Your task to perform on an android device: Turn off the flashlight Image 0: 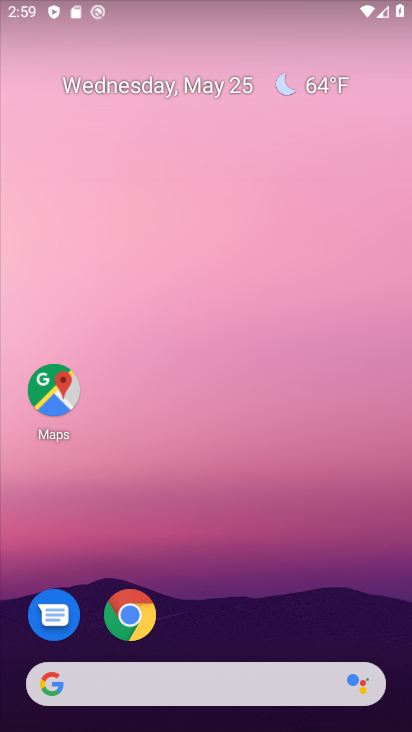
Step 0: drag from (360, 8) to (368, 491)
Your task to perform on an android device: Turn off the flashlight Image 1: 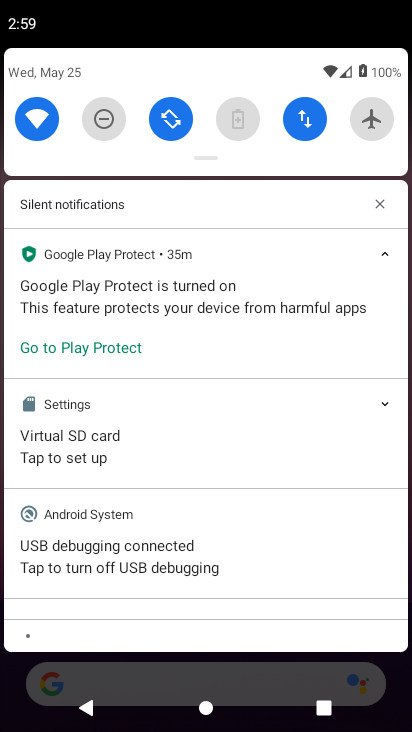
Step 1: drag from (314, 157) to (333, 603)
Your task to perform on an android device: Turn off the flashlight Image 2: 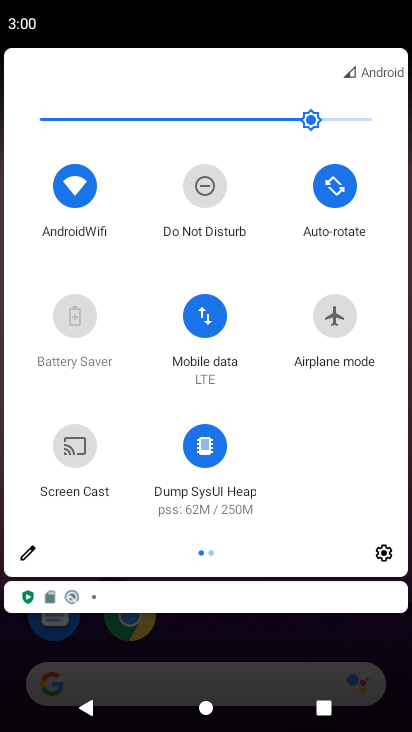
Step 2: click (28, 553)
Your task to perform on an android device: Turn off the flashlight Image 3: 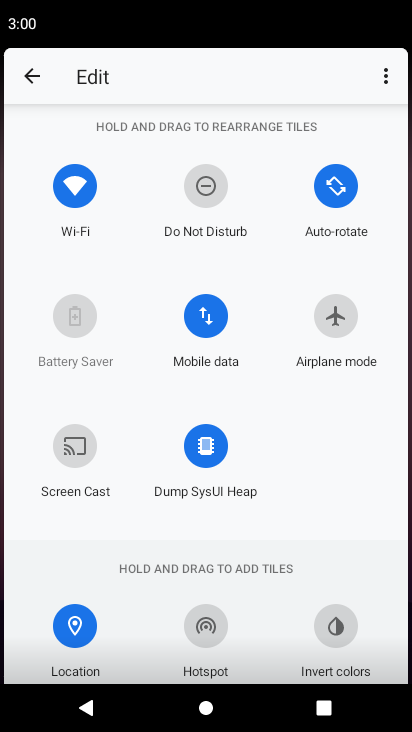
Step 3: task complete